Your task to perform on an android device: Set the phone to "Do not disturb". Image 0: 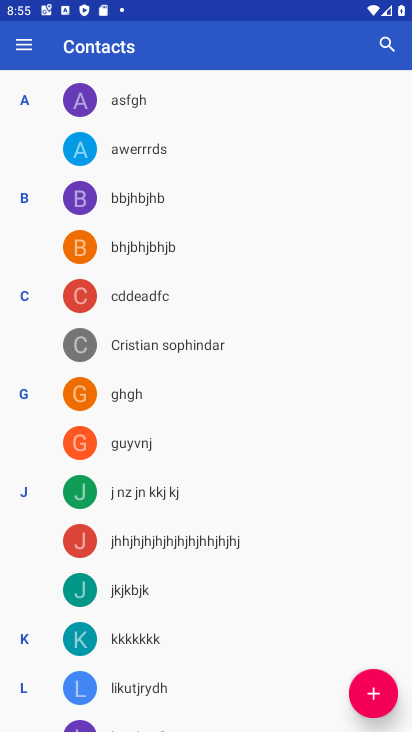
Step 0: press home button
Your task to perform on an android device: Set the phone to "Do not disturb". Image 1: 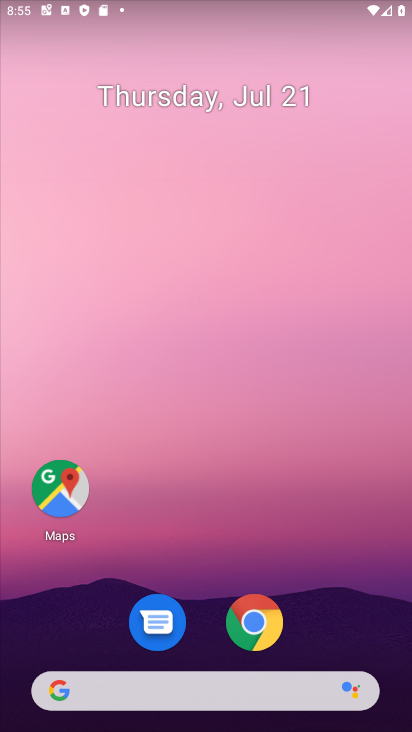
Step 1: drag from (158, 724) to (111, 283)
Your task to perform on an android device: Set the phone to "Do not disturb". Image 2: 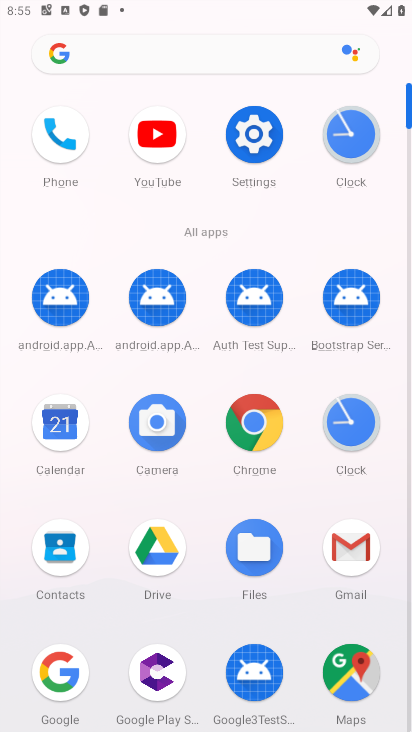
Step 2: click (245, 137)
Your task to perform on an android device: Set the phone to "Do not disturb". Image 3: 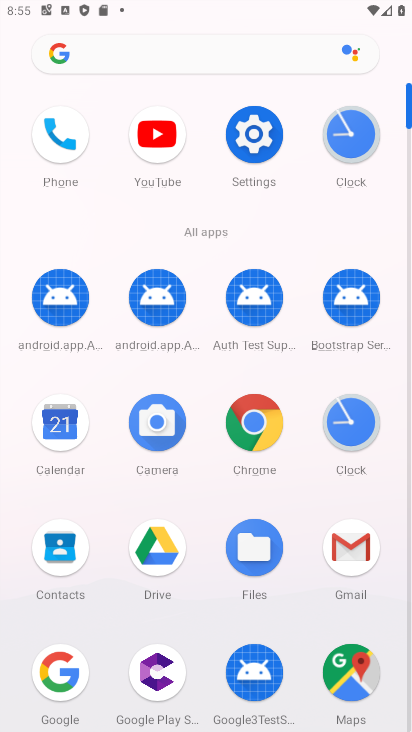
Step 3: click (245, 137)
Your task to perform on an android device: Set the phone to "Do not disturb". Image 4: 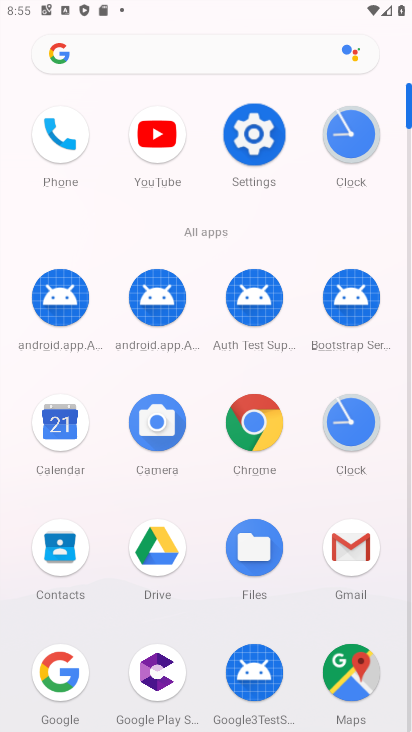
Step 4: click (245, 137)
Your task to perform on an android device: Set the phone to "Do not disturb". Image 5: 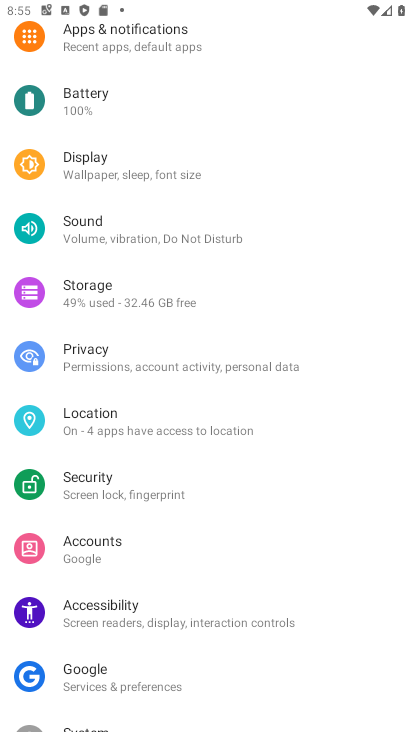
Step 5: click (182, 241)
Your task to perform on an android device: Set the phone to "Do not disturb". Image 6: 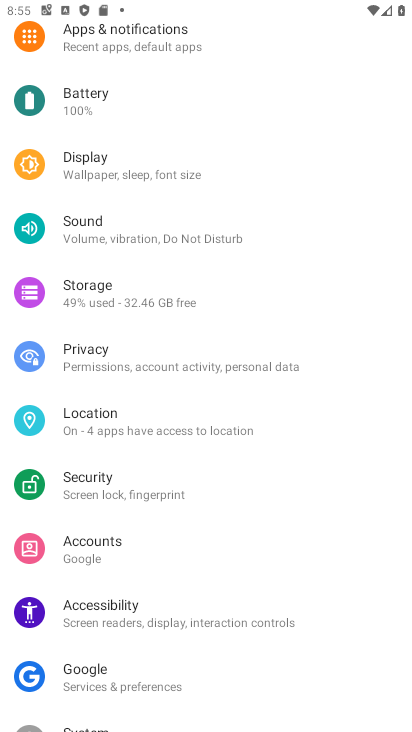
Step 6: click (182, 241)
Your task to perform on an android device: Set the phone to "Do not disturb". Image 7: 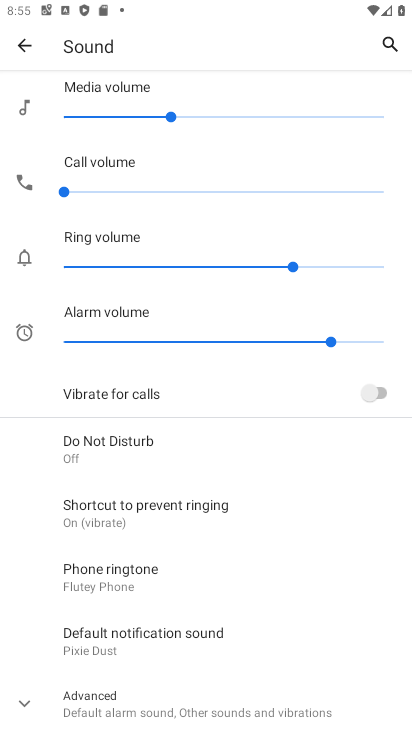
Step 7: click (106, 449)
Your task to perform on an android device: Set the phone to "Do not disturb". Image 8: 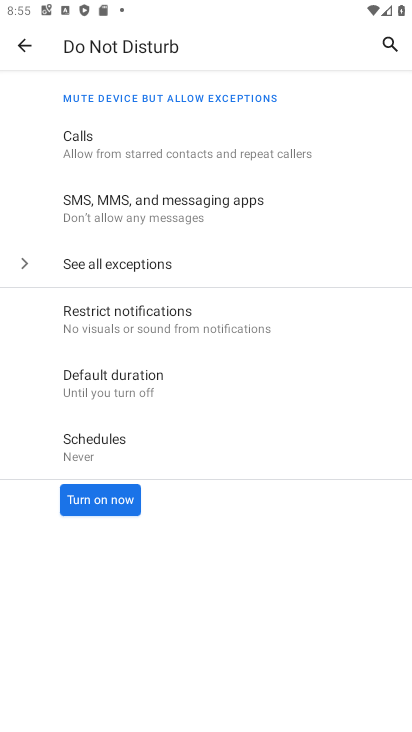
Step 8: click (104, 503)
Your task to perform on an android device: Set the phone to "Do not disturb". Image 9: 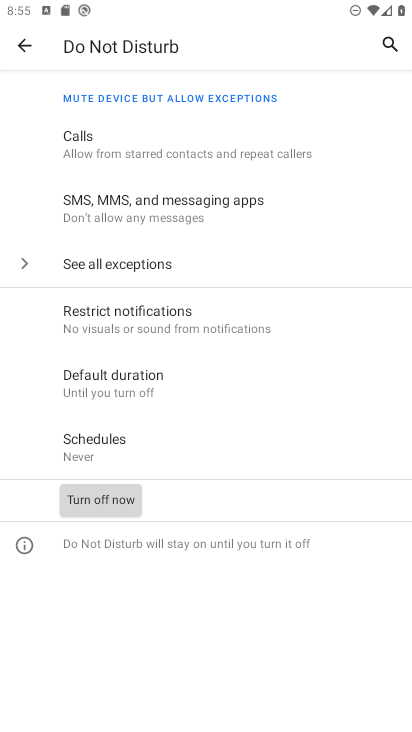
Step 9: task complete